Your task to perform on an android device: turn on priority inbox in the gmail app Image 0: 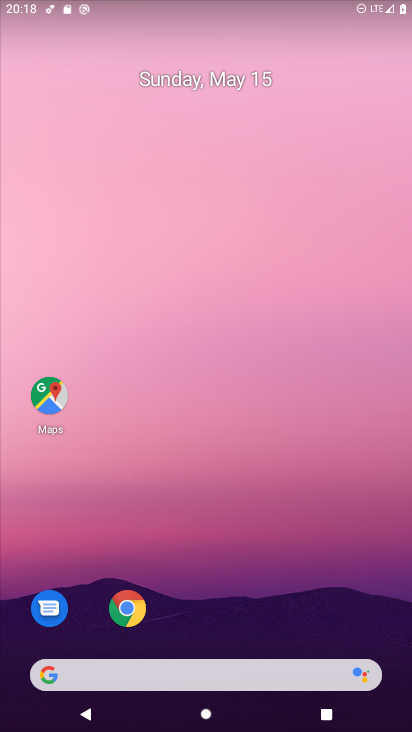
Step 0: drag from (247, 614) to (184, 175)
Your task to perform on an android device: turn on priority inbox in the gmail app Image 1: 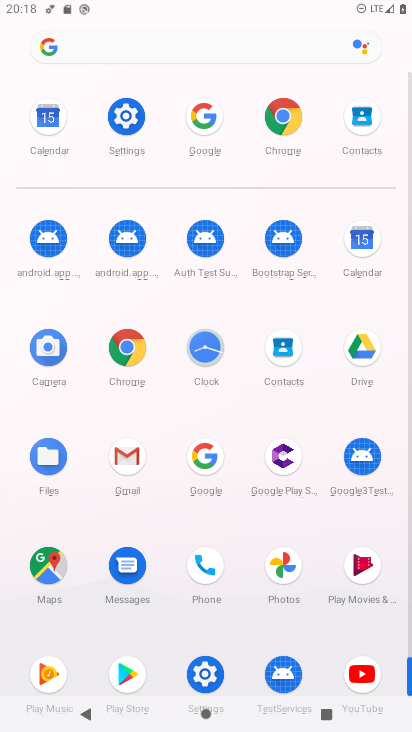
Step 1: click (114, 458)
Your task to perform on an android device: turn on priority inbox in the gmail app Image 2: 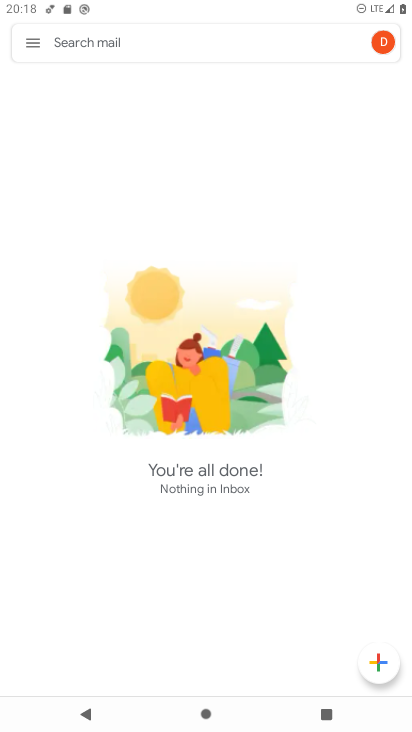
Step 2: click (27, 37)
Your task to perform on an android device: turn on priority inbox in the gmail app Image 3: 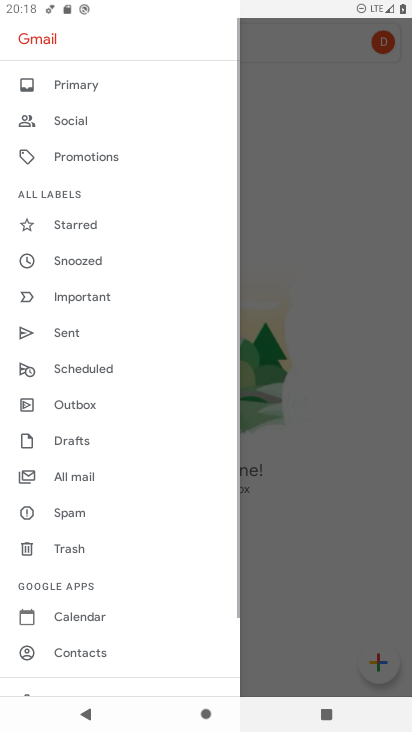
Step 3: drag from (92, 587) to (108, 215)
Your task to perform on an android device: turn on priority inbox in the gmail app Image 4: 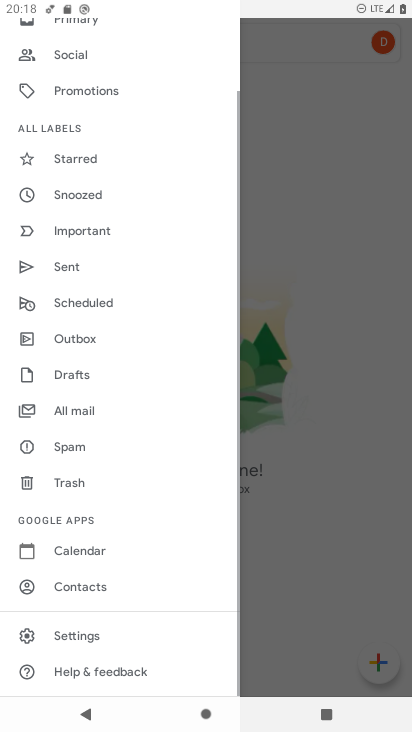
Step 4: click (68, 641)
Your task to perform on an android device: turn on priority inbox in the gmail app Image 5: 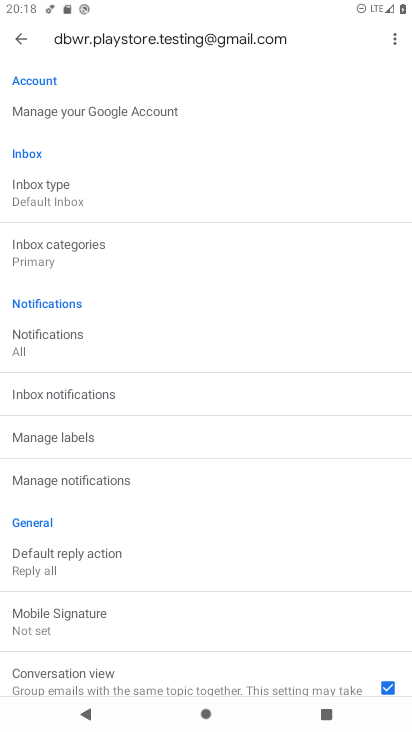
Step 5: click (65, 193)
Your task to perform on an android device: turn on priority inbox in the gmail app Image 6: 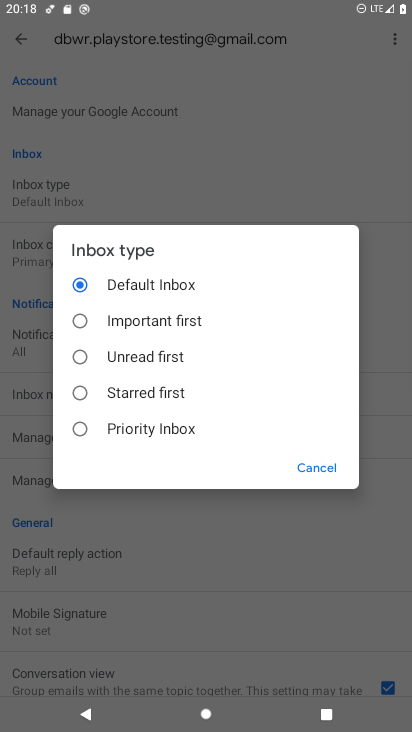
Step 6: click (81, 429)
Your task to perform on an android device: turn on priority inbox in the gmail app Image 7: 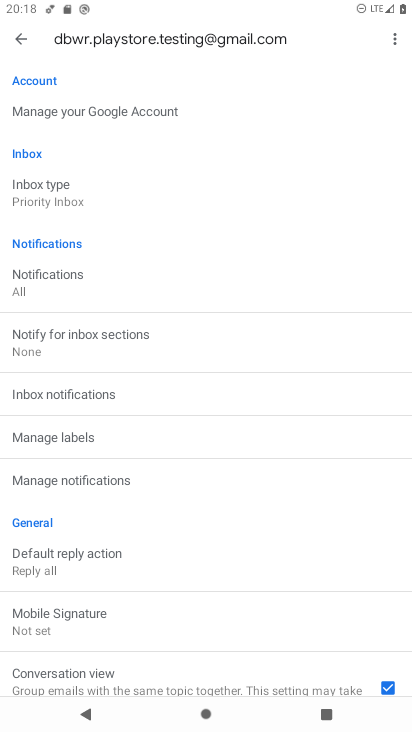
Step 7: task complete